Your task to perform on an android device: Open eBay Image 0: 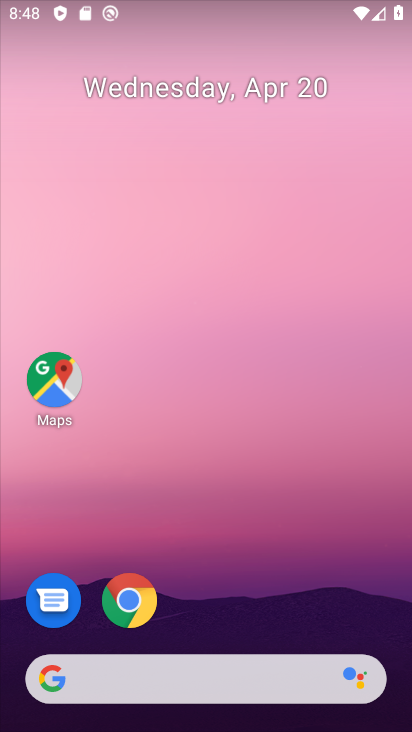
Step 0: click (201, 116)
Your task to perform on an android device: Open eBay Image 1: 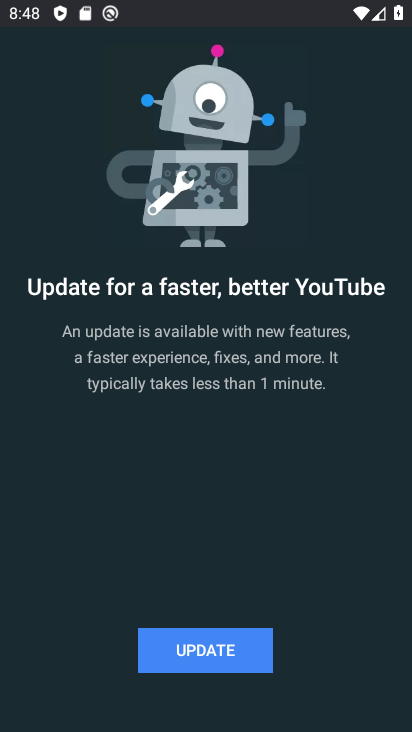
Step 1: press home button
Your task to perform on an android device: Open eBay Image 2: 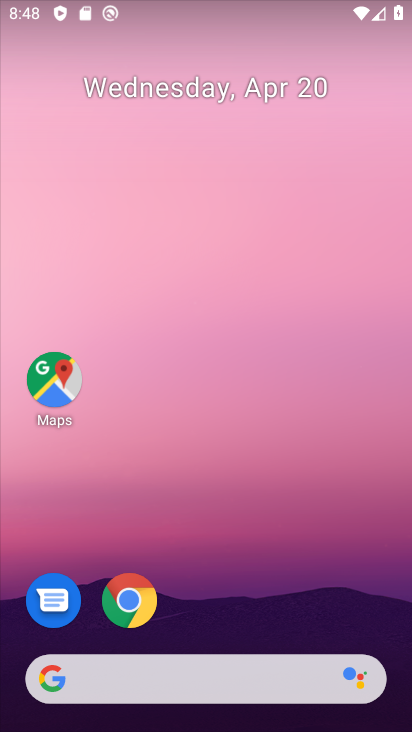
Step 2: click (127, 613)
Your task to perform on an android device: Open eBay Image 3: 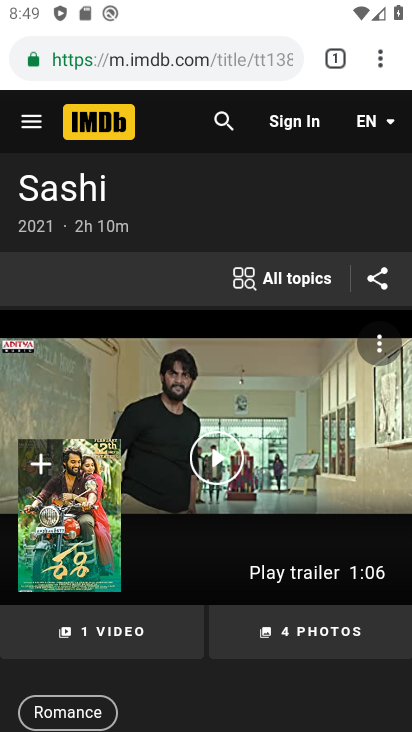
Step 3: click (168, 56)
Your task to perform on an android device: Open eBay Image 4: 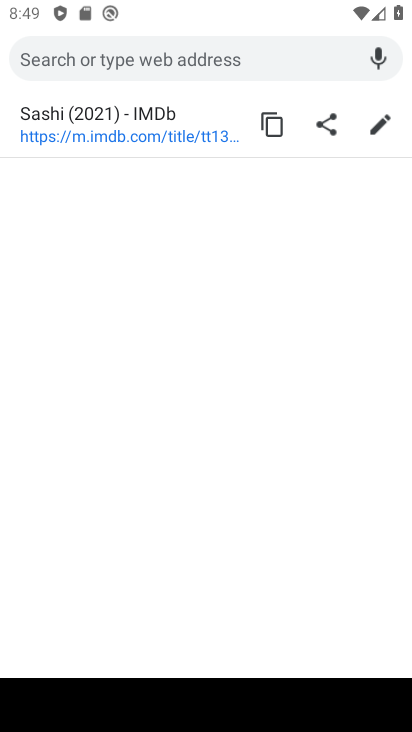
Step 4: type "ebay"
Your task to perform on an android device: Open eBay Image 5: 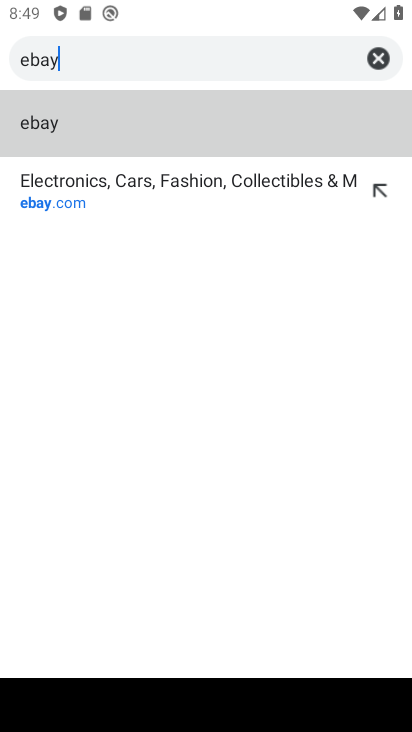
Step 5: click (97, 189)
Your task to perform on an android device: Open eBay Image 6: 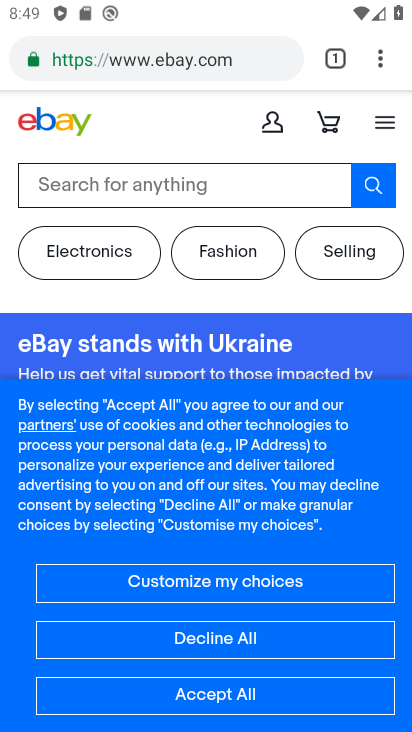
Step 6: task complete